Your task to perform on an android device: Go to Android settings Image 0: 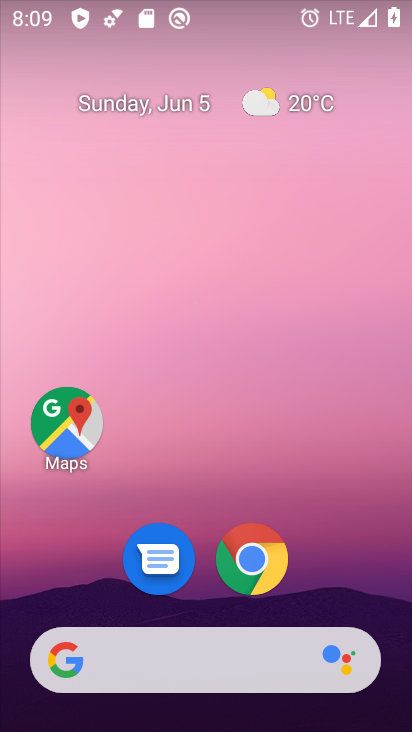
Step 0: drag from (381, 572) to (279, 192)
Your task to perform on an android device: Go to Android settings Image 1: 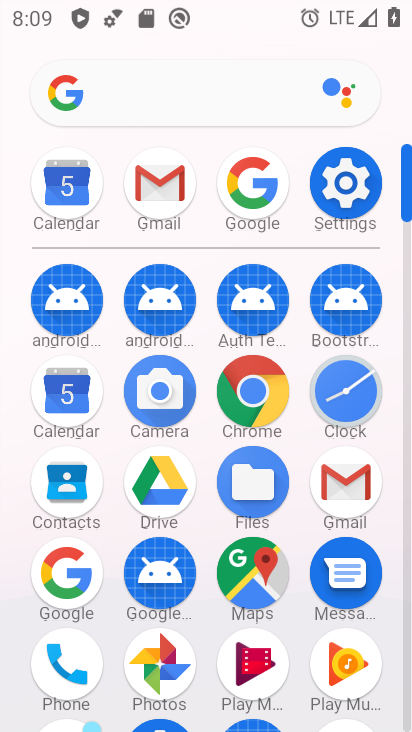
Step 1: click (341, 181)
Your task to perform on an android device: Go to Android settings Image 2: 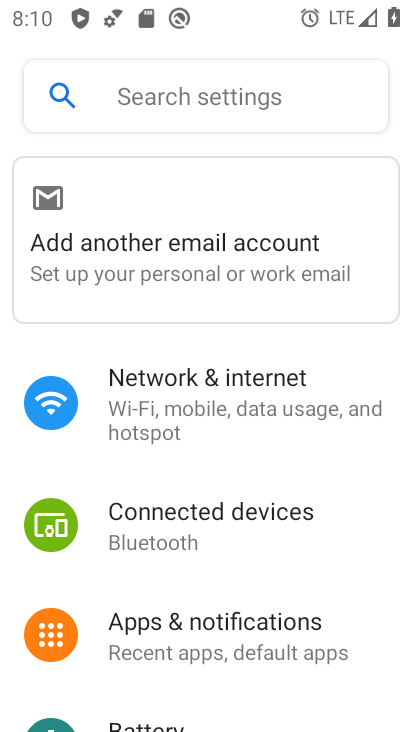
Step 2: task complete